Your task to perform on an android device: turn on showing notifications on the lock screen Image 0: 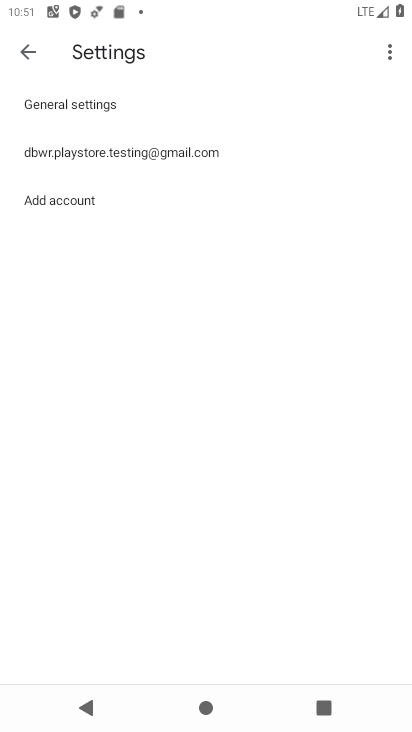
Step 0: press home button
Your task to perform on an android device: turn on showing notifications on the lock screen Image 1: 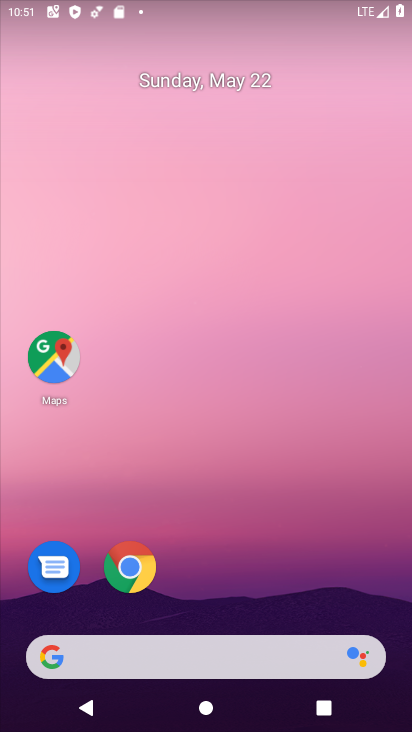
Step 1: drag from (392, 610) to (332, 69)
Your task to perform on an android device: turn on showing notifications on the lock screen Image 2: 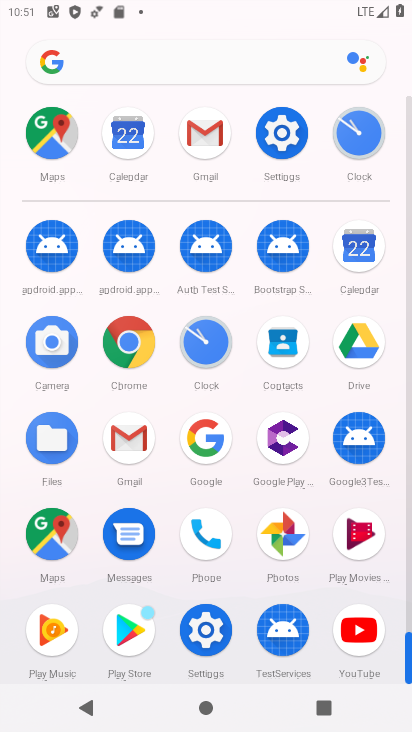
Step 2: click (206, 625)
Your task to perform on an android device: turn on showing notifications on the lock screen Image 3: 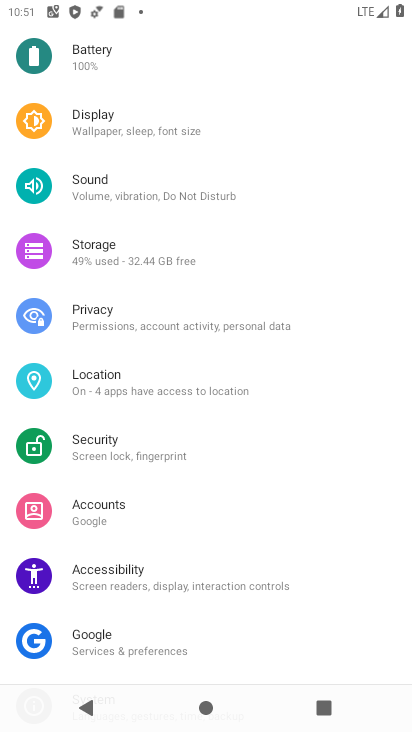
Step 3: drag from (273, 157) to (320, 549)
Your task to perform on an android device: turn on showing notifications on the lock screen Image 4: 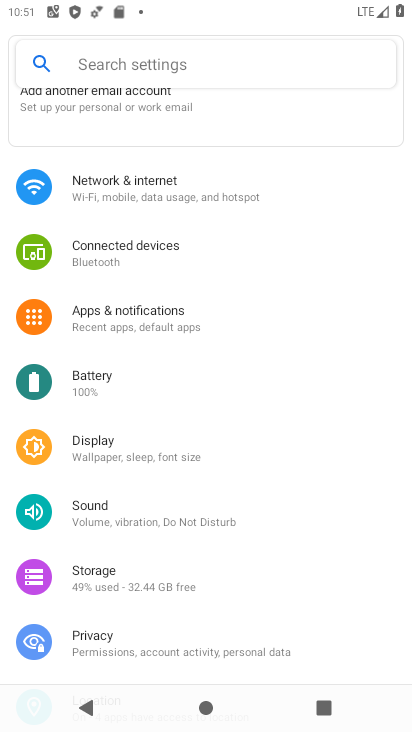
Step 4: click (130, 312)
Your task to perform on an android device: turn on showing notifications on the lock screen Image 5: 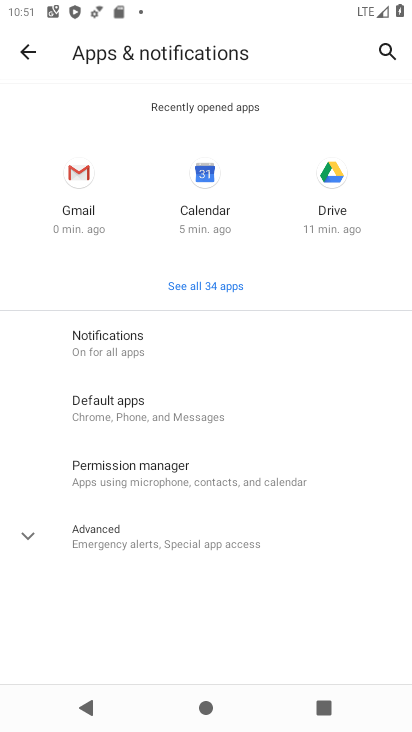
Step 5: click (96, 344)
Your task to perform on an android device: turn on showing notifications on the lock screen Image 6: 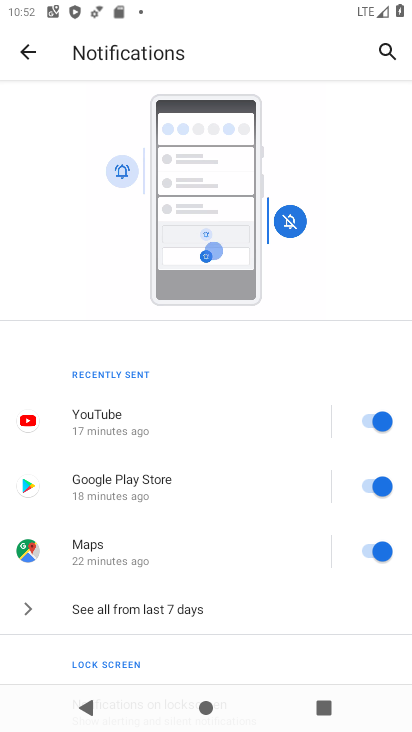
Step 6: drag from (278, 673) to (225, 348)
Your task to perform on an android device: turn on showing notifications on the lock screen Image 7: 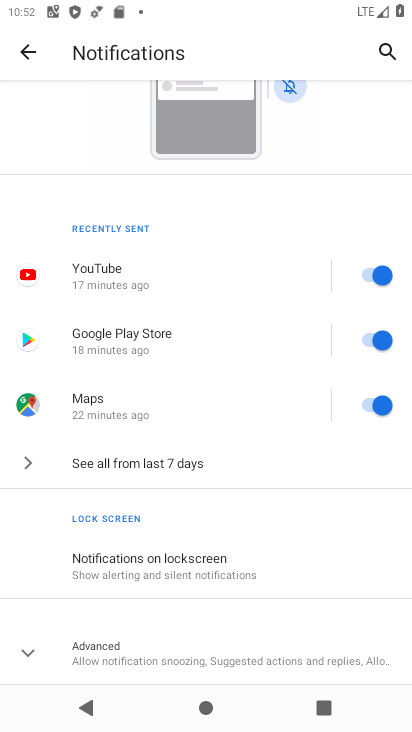
Step 7: click (144, 565)
Your task to perform on an android device: turn on showing notifications on the lock screen Image 8: 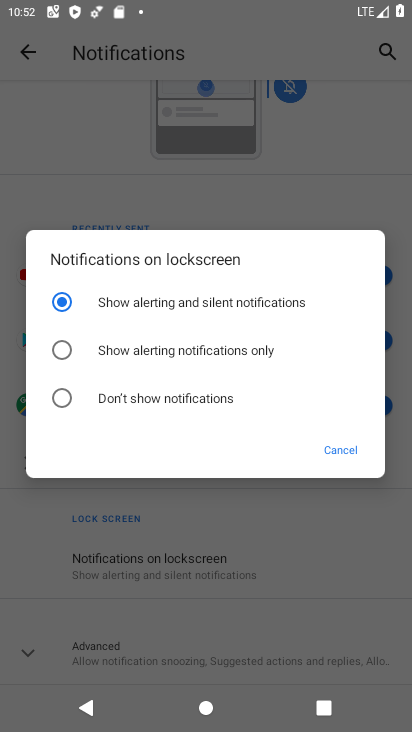
Step 8: task complete